Your task to perform on an android device: What's the weather going to be this weekend? Image 0: 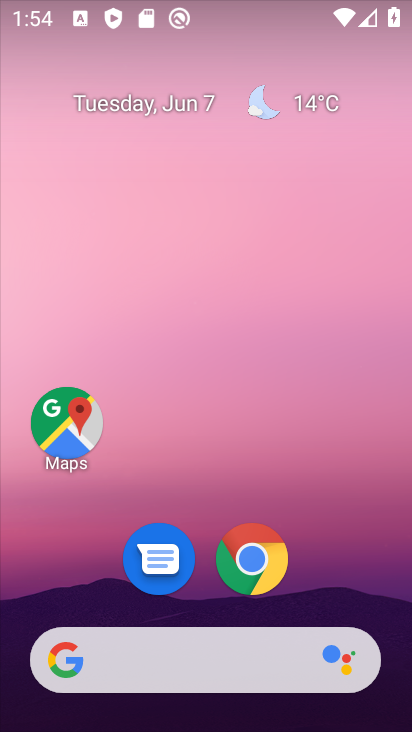
Step 0: click (195, 659)
Your task to perform on an android device: What's the weather going to be this weekend? Image 1: 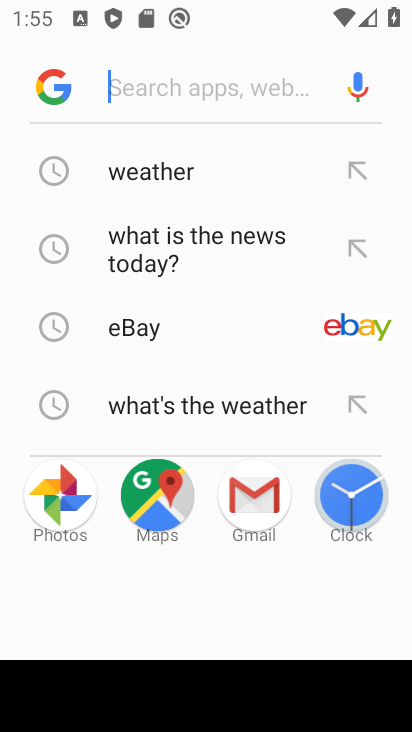
Step 1: click (148, 178)
Your task to perform on an android device: What's the weather going to be this weekend? Image 2: 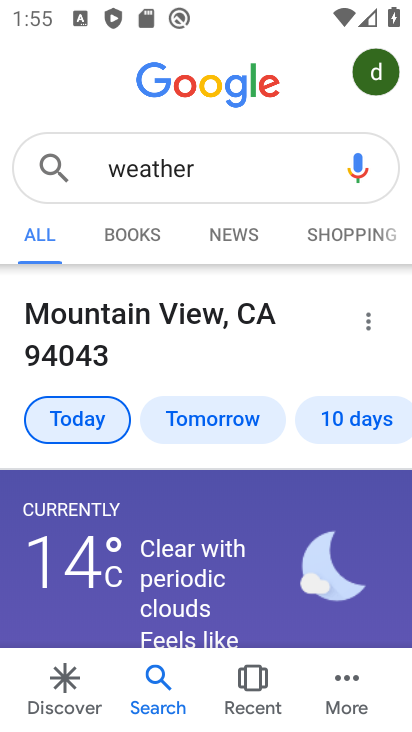
Step 2: task complete